Your task to perform on an android device: read, delete, or share a saved page in the chrome app Image 0: 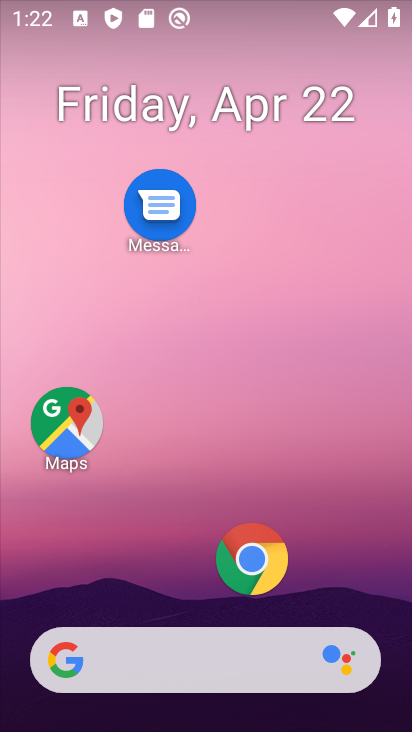
Step 0: click (266, 234)
Your task to perform on an android device: read, delete, or share a saved page in the chrome app Image 1: 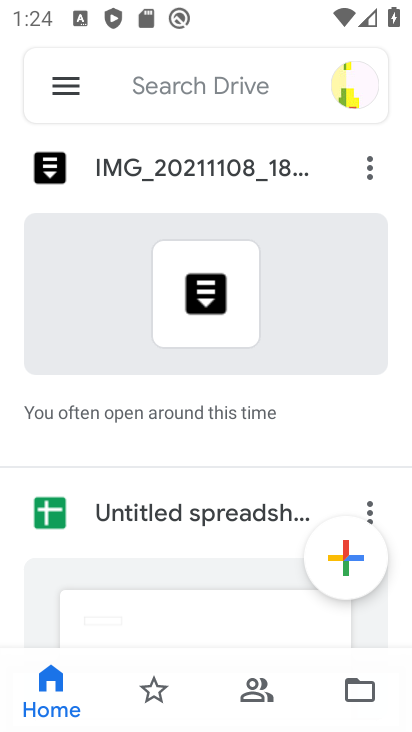
Step 1: press back button
Your task to perform on an android device: read, delete, or share a saved page in the chrome app Image 2: 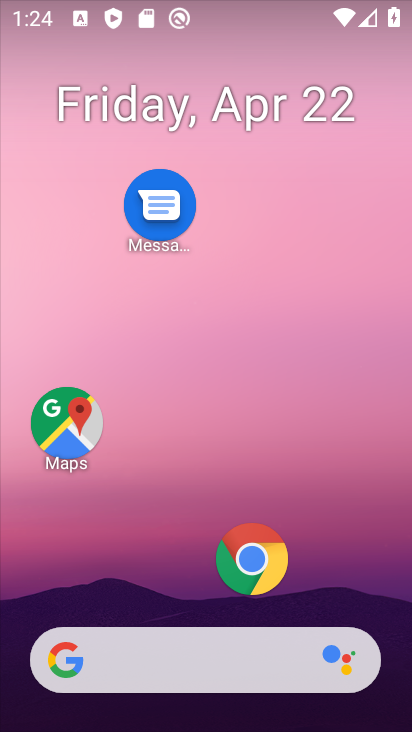
Step 2: click (269, 552)
Your task to perform on an android device: read, delete, or share a saved page in the chrome app Image 3: 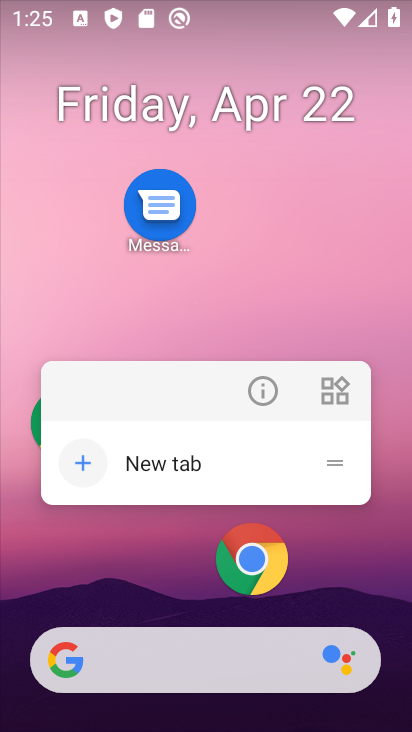
Step 3: click (252, 570)
Your task to perform on an android device: read, delete, or share a saved page in the chrome app Image 4: 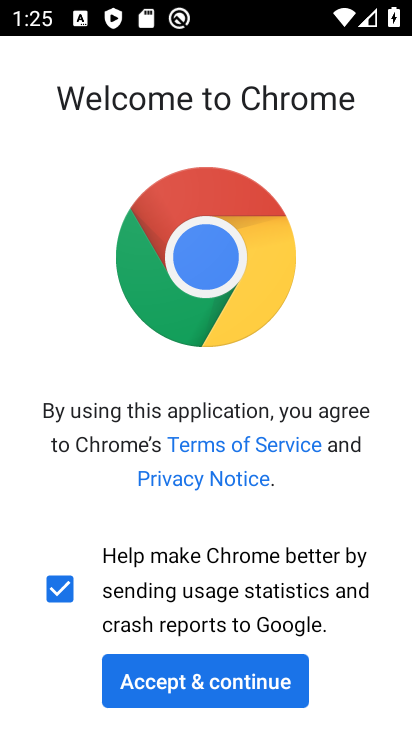
Step 4: click (229, 677)
Your task to perform on an android device: read, delete, or share a saved page in the chrome app Image 5: 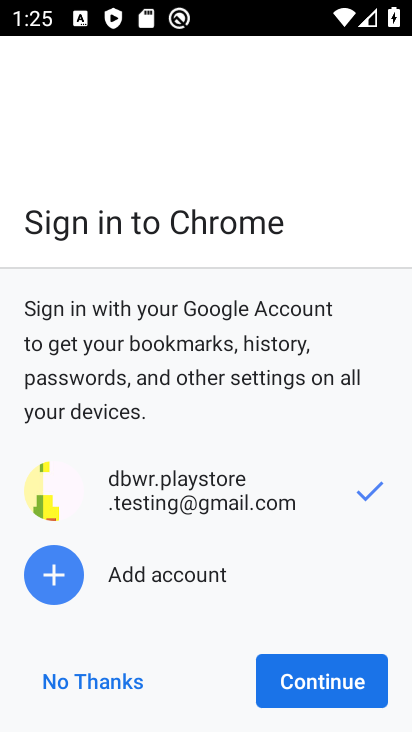
Step 5: click (342, 685)
Your task to perform on an android device: read, delete, or share a saved page in the chrome app Image 6: 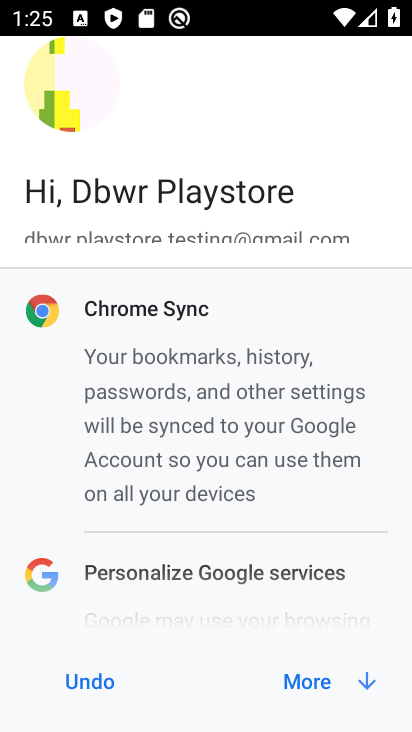
Step 6: click (316, 678)
Your task to perform on an android device: read, delete, or share a saved page in the chrome app Image 7: 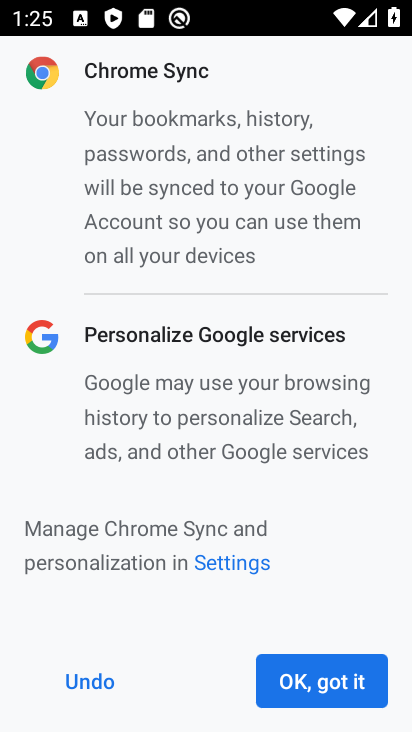
Step 7: click (316, 678)
Your task to perform on an android device: read, delete, or share a saved page in the chrome app Image 8: 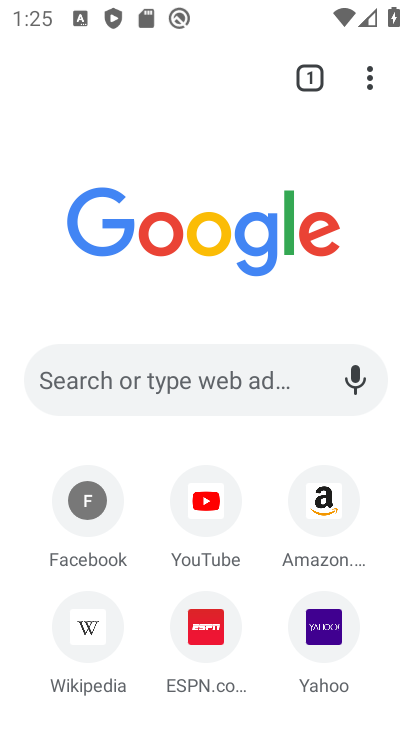
Step 8: click (366, 75)
Your task to perform on an android device: read, delete, or share a saved page in the chrome app Image 9: 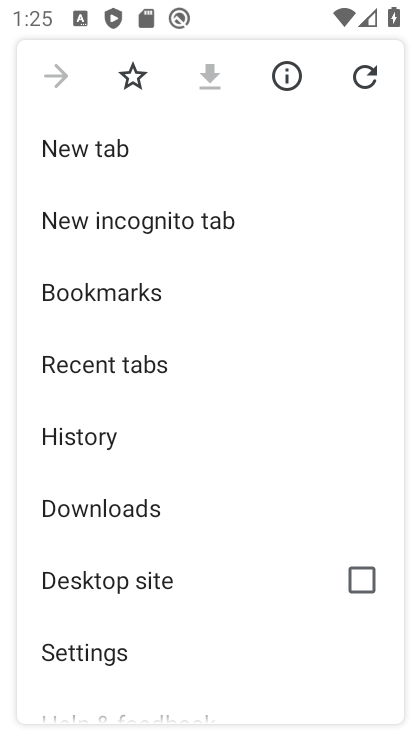
Step 9: click (101, 513)
Your task to perform on an android device: read, delete, or share a saved page in the chrome app Image 10: 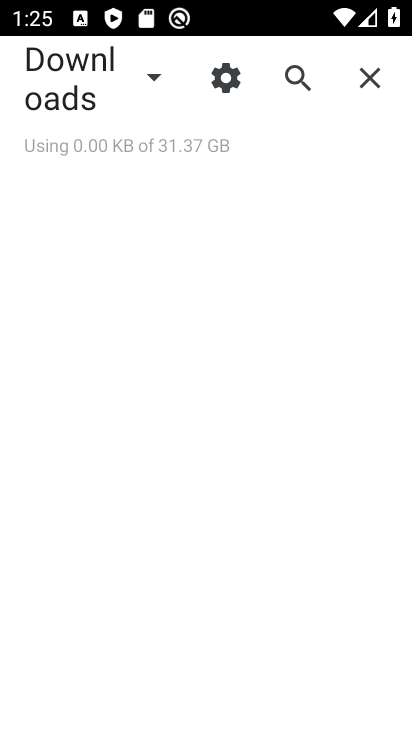
Step 10: click (149, 78)
Your task to perform on an android device: read, delete, or share a saved page in the chrome app Image 11: 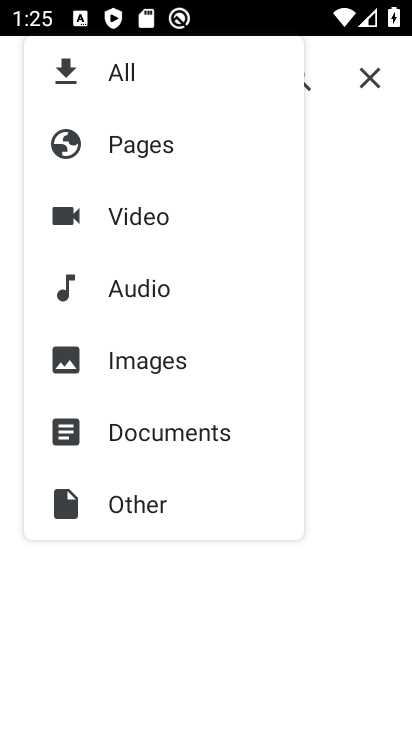
Step 11: click (134, 139)
Your task to perform on an android device: read, delete, or share a saved page in the chrome app Image 12: 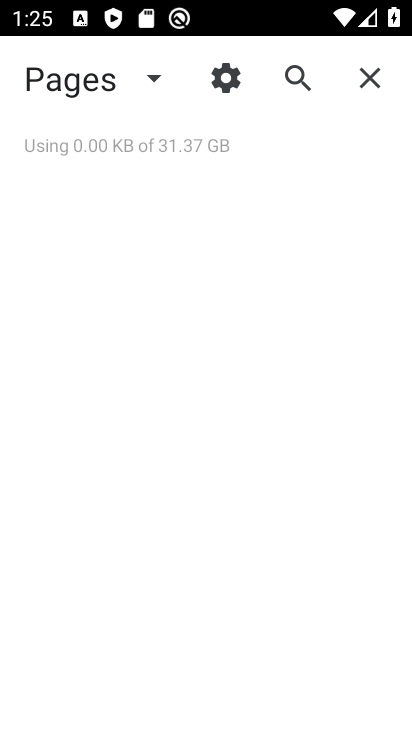
Step 12: click (148, 74)
Your task to perform on an android device: read, delete, or share a saved page in the chrome app Image 13: 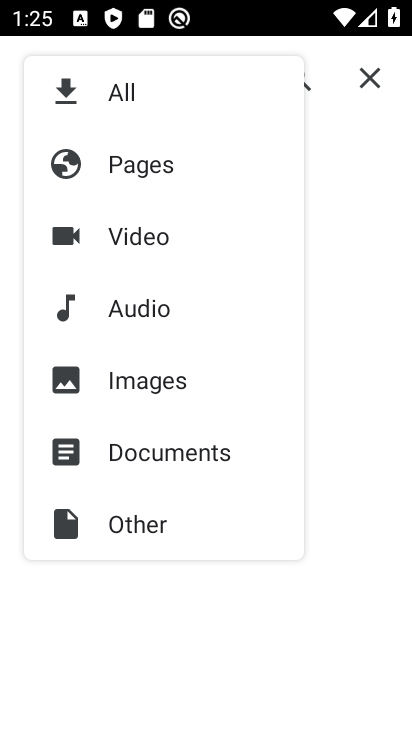
Step 13: task complete